Your task to perform on an android device: Go to CNN.com Image 0: 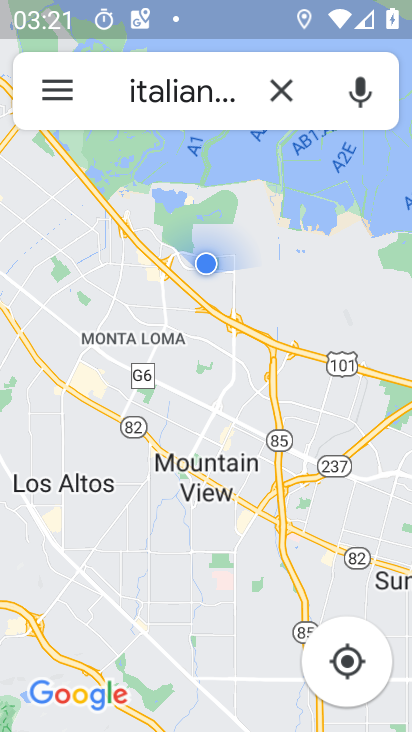
Step 0: press home button
Your task to perform on an android device: Go to CNN.com Image 1: 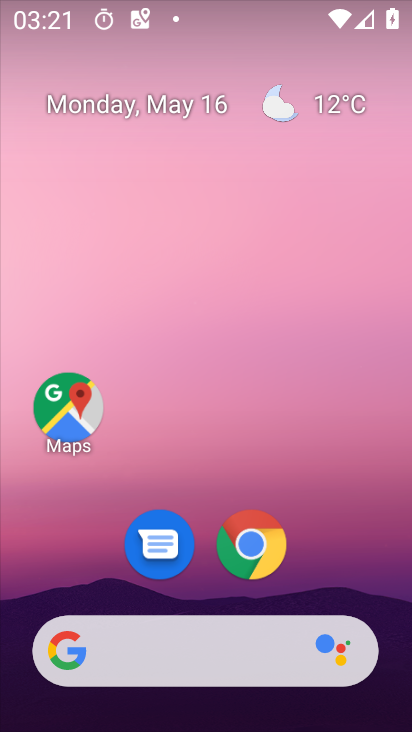
Step 1: click (248, 535)
Your task to perform on an android device: Go to CNN.com Image 2: 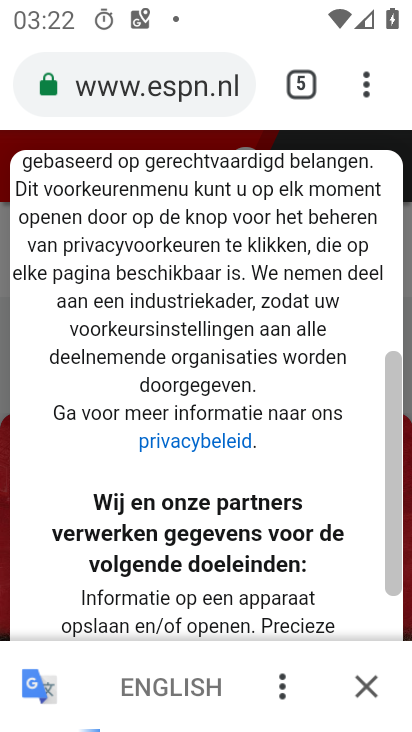
Step 2: click (367, 93)
Your task to perform on an android device: Go to CNN.com Image 3: 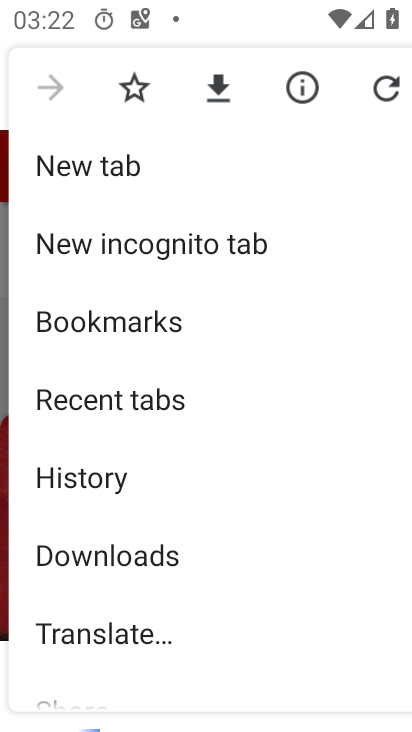
Step 3: click (103, 166)
Your task to perform on an android device: Go to CNN.com Image 4: 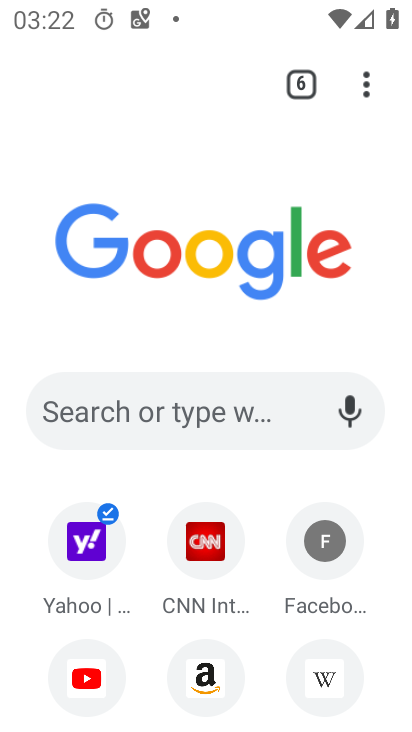
Step 4: click (144, 413)
Your task to perform on an android device: Go to CNN.com Image 5: 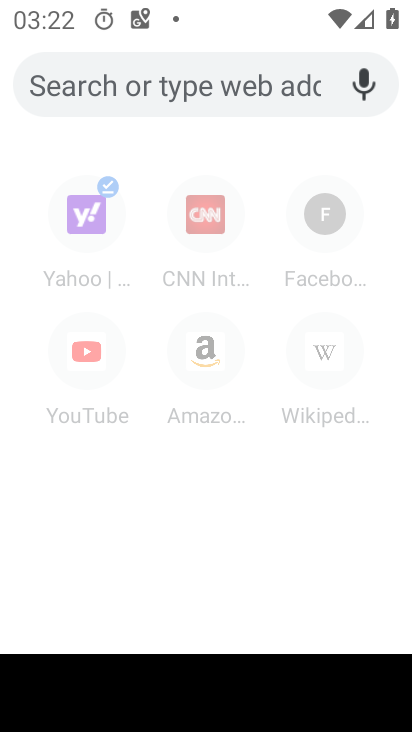
Step 5: type "CNN.com"
Your task to perform on an android device: Go to CNN.com Image 6: 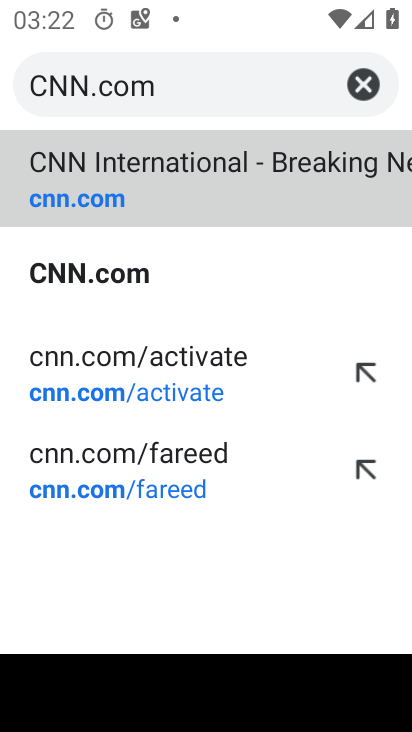
Step 6: click (88, 179)
Your task to perform on an android device: Go to CNN.com Image 7: 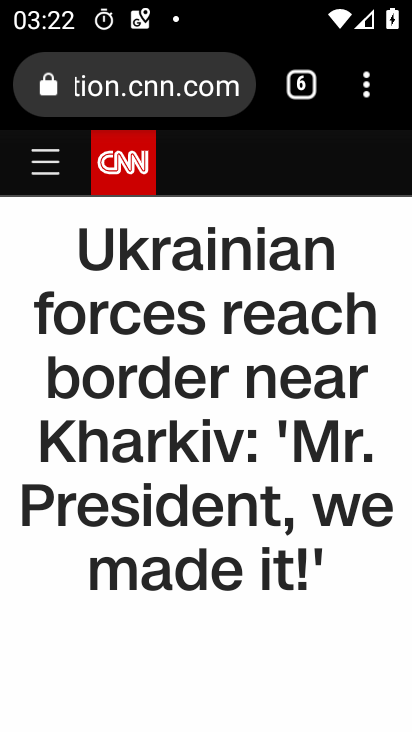
Step 7: task complete